Your task to perform on an android device: Open the web browser Image 0: 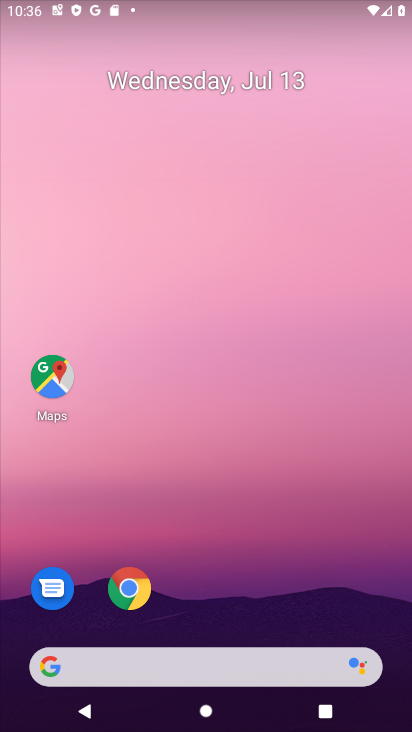
Step 0: drag from (218, 598) to (181, 68)
Your task to perform on an android device: Open the web browser Image 1: 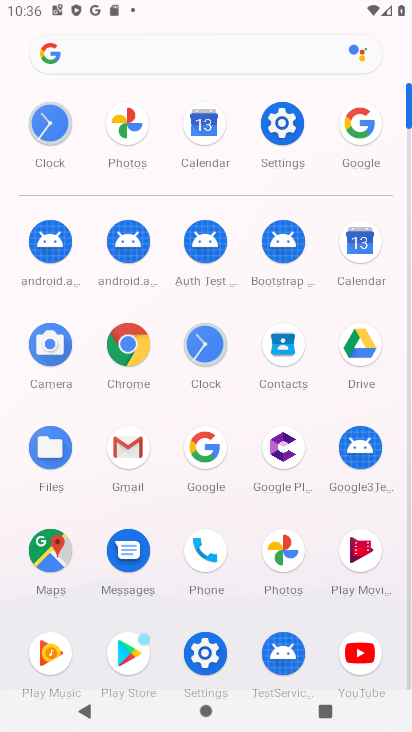
Step 1: click (210, 444)
Your task to perform on an android device: Open the web browser Image 2: 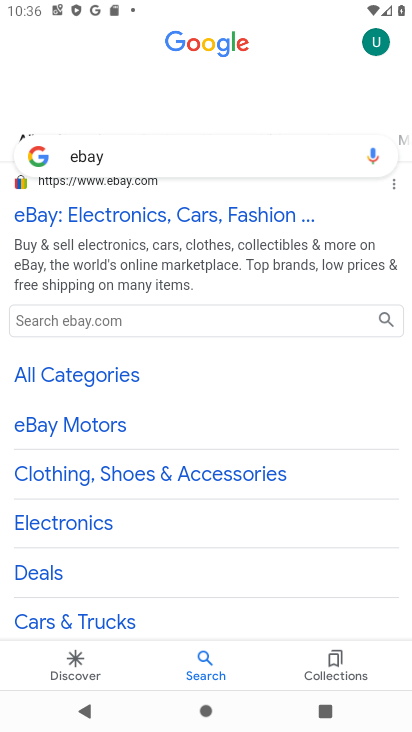
Step 2: task complete